Your task to perform on an android device: change your default location settings in chrome Image 0: 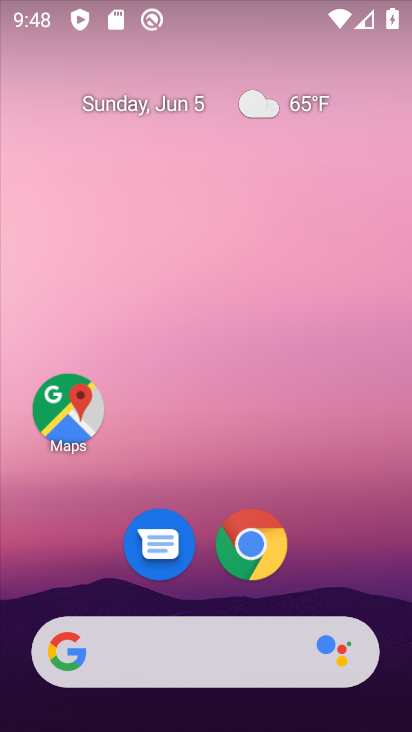
Step 0: drag from (341, 575) to (269, 136)
Your task to perform on an android device: change your default location settings in chrome Image 1: 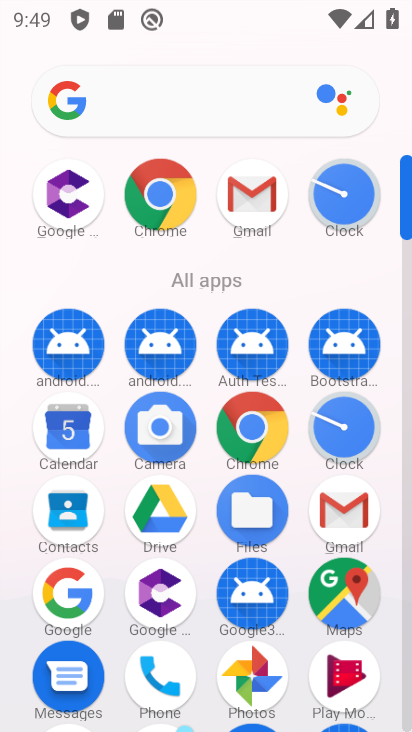
Step 1: click (135, 206)
Your task to perform on an android device: change your default location settings in chrome Image 2: 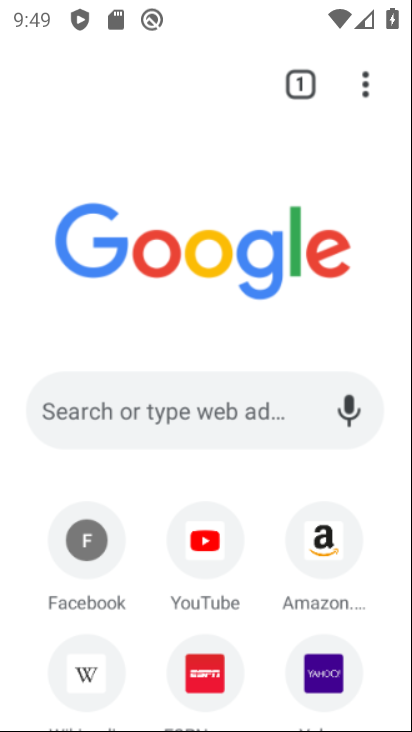
Step 2: task complete